Your task to perform on an android device: open a new tab in the chrome app Image 0: 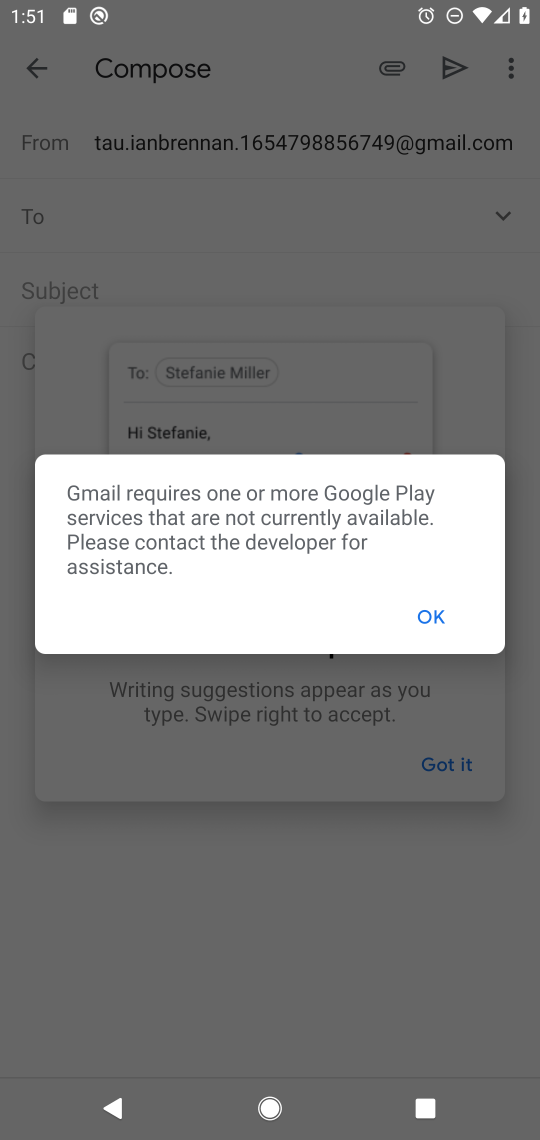
Step 0: press home button
Your task to perform on an android device: open a new tab in the chrome app Image 1: 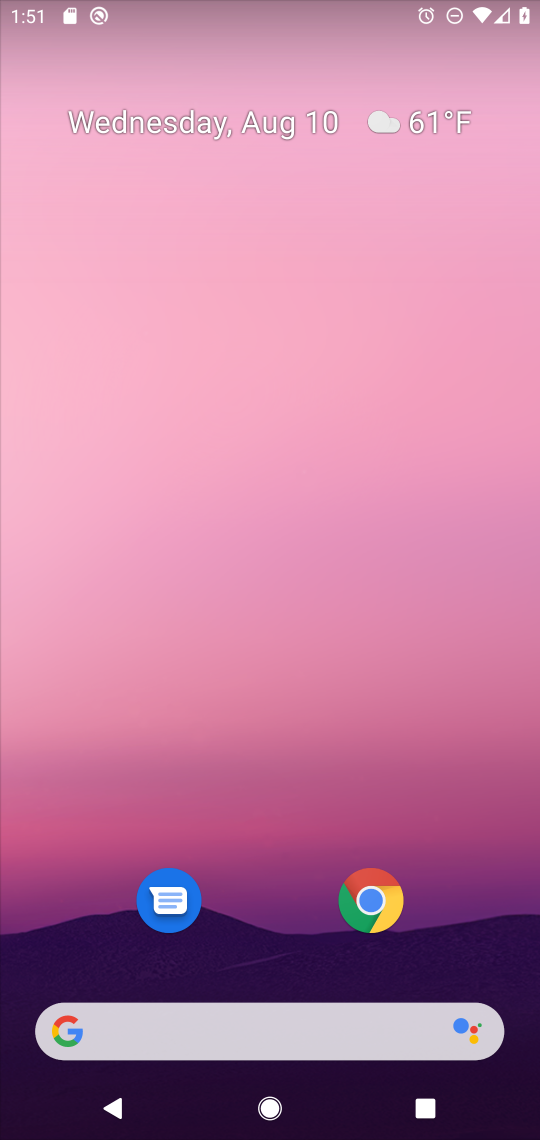
Step 1: click (380, 897)
Your task to perform on an android device: open a new tab in the chrome app Image 2: 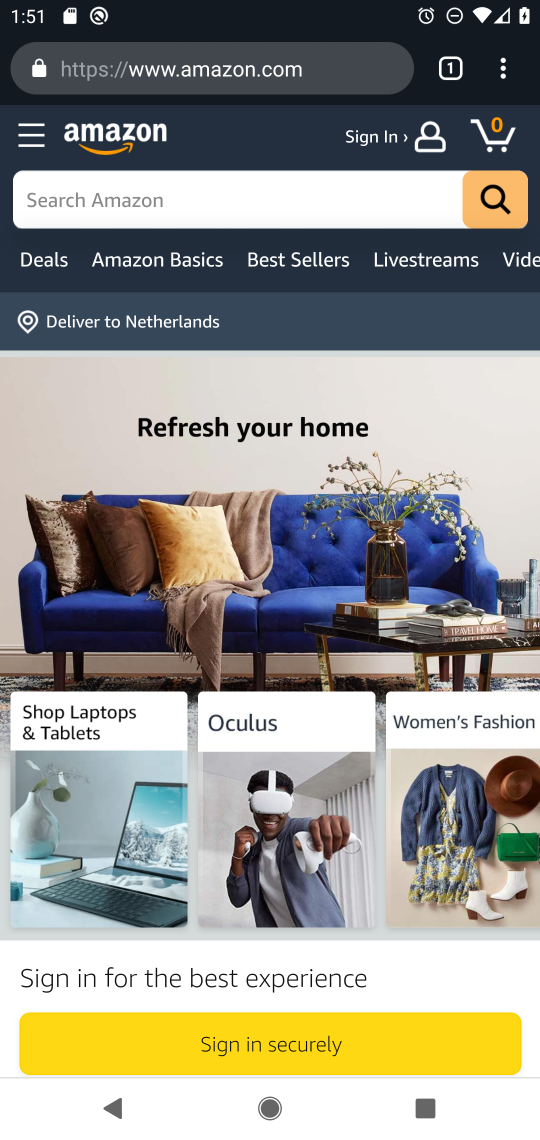
Step 2: click (504, 83)
Your task to perform on an android device: open a new tab in the chrome app Image 3: 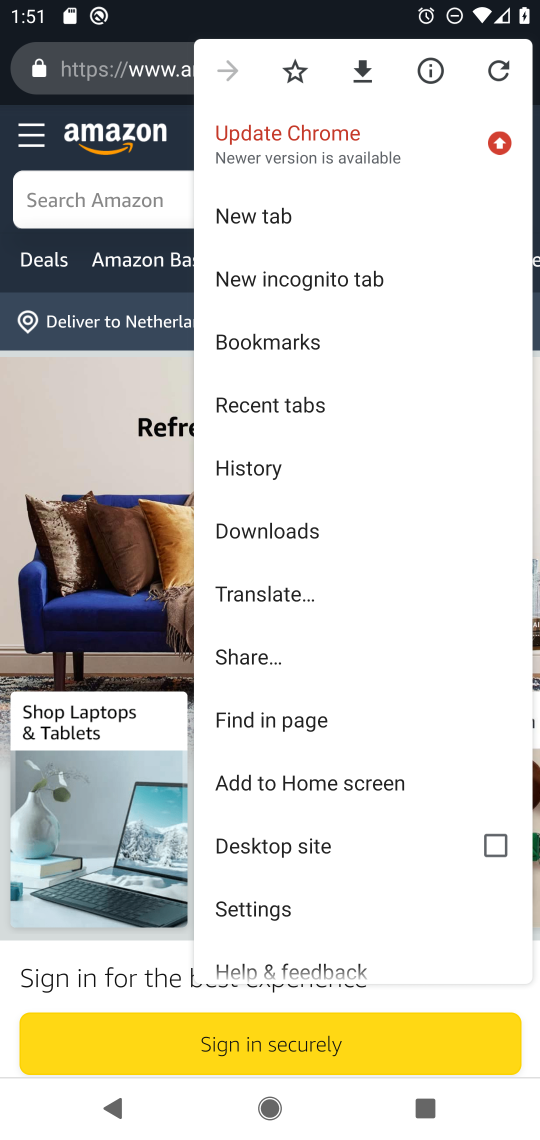
Step 3: click (333, 215)
Your task to perform on an android device: open a new tab in the chrome app Image 4: 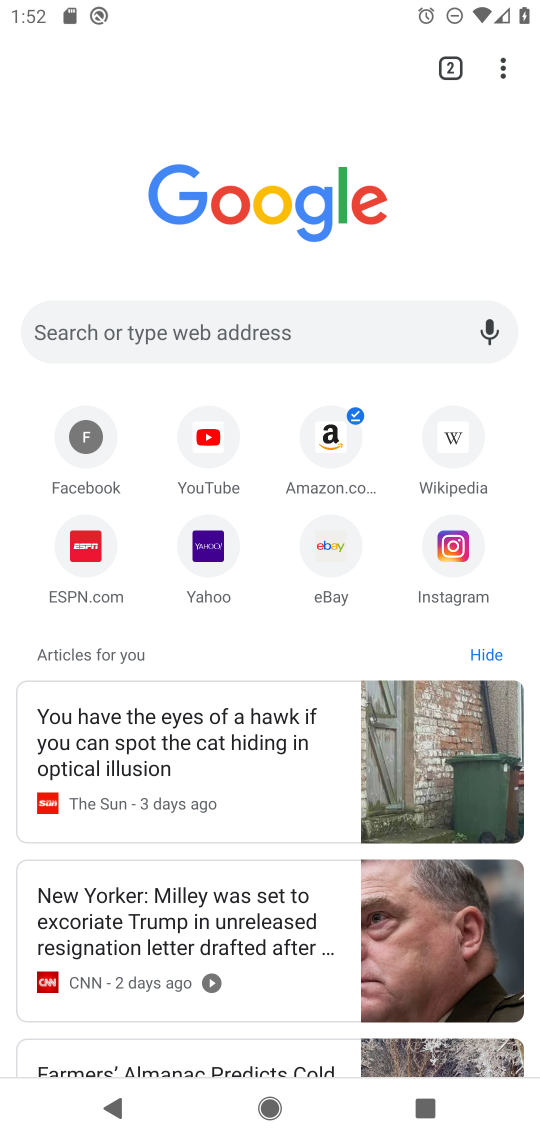
Step 4: task complete